Your task to perform on an android device: change keyboard looks Image 0: 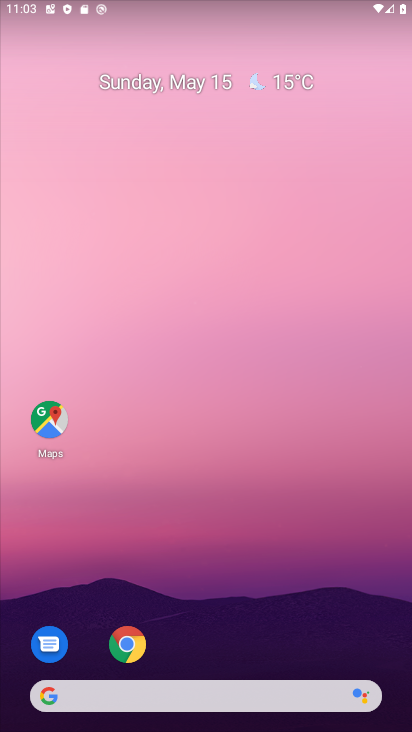
Step 0: drag from (256, 601) to (209, 96)
Your task to perform on an android device: change keyboard looks Image 1: 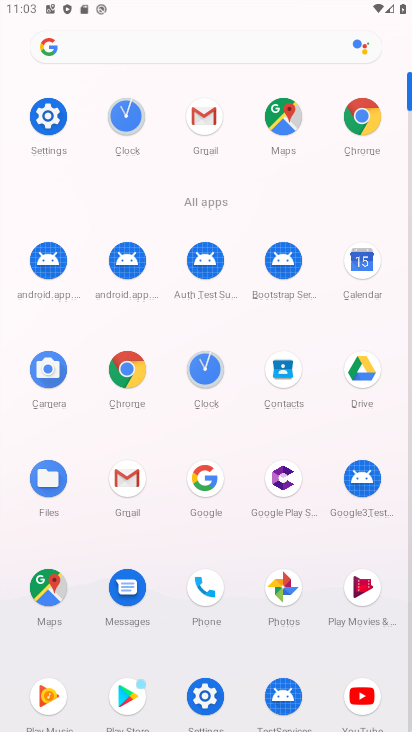
Step 1: click (37, 130)
Your task to perform on an android device: change keyboard looks Image 2: 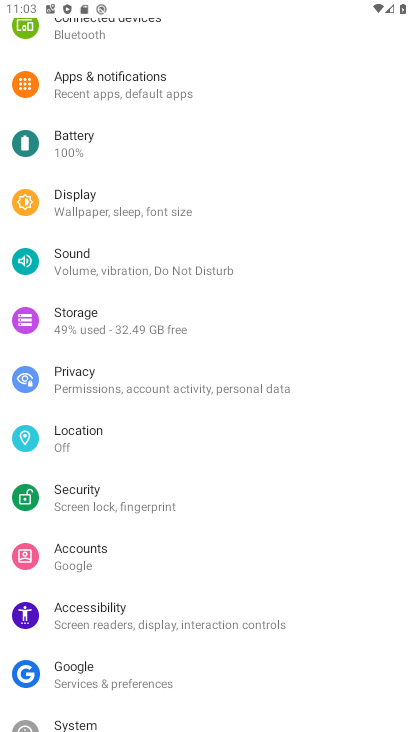
Step 2: drag from (236, 530) to (196, 115)
Your task to perform on an android device: change keyboard looks Image 3: 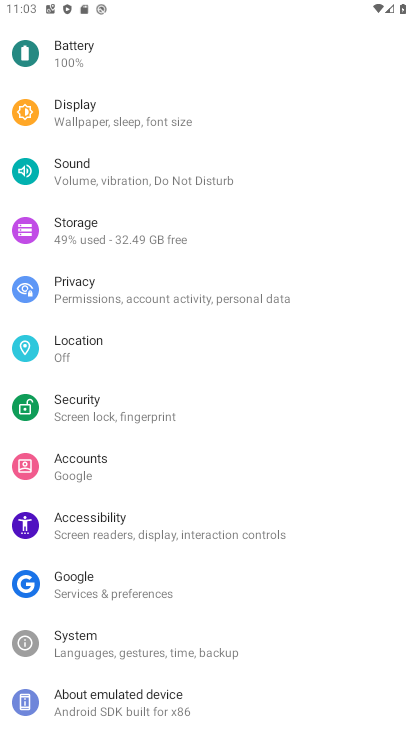
Step 3: click (174, 652)
Your task to perform on an android device: change keyboard looks Image 4: 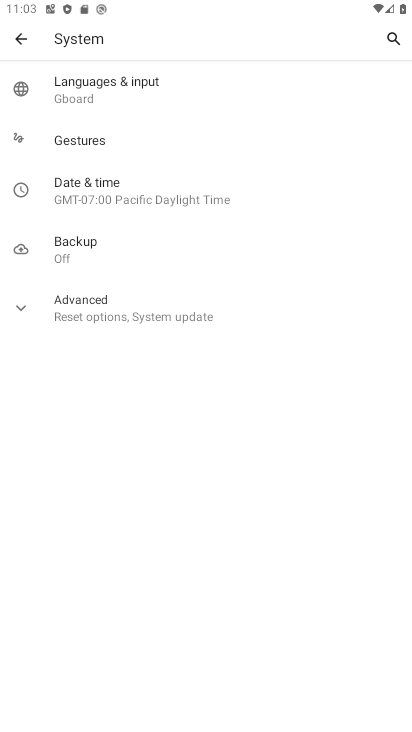
Step 4: click (106, 88)
Your task to perform on an android device: change keyboard looks Image 5: 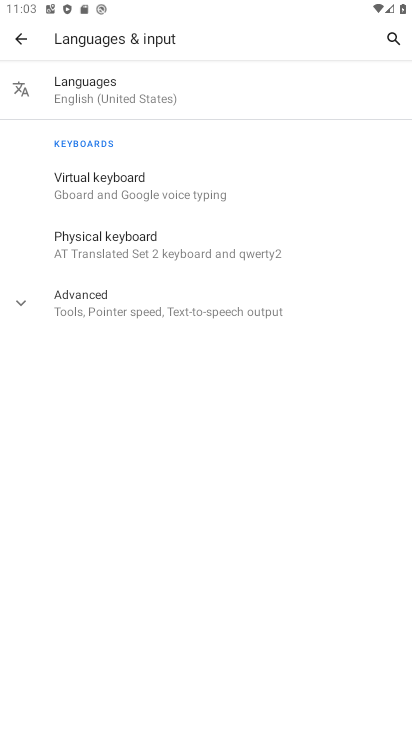
Step 5: click (107, 187)
Your task to perform on an android device: change keyboard looks Image 6: 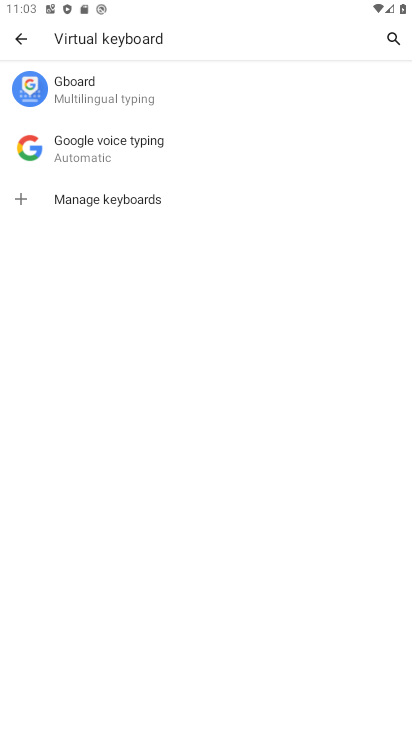
Step 6: click (132, 70)
Your task to perform on an android device: change keyboard looks Image 7: 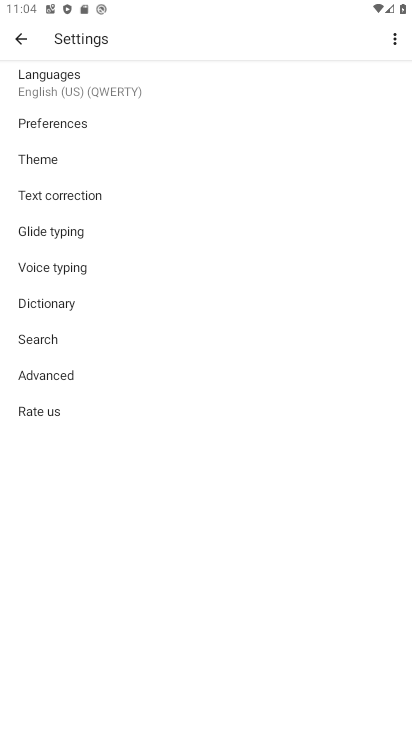
Step 7: click (91, 160)
Your task to perform on an android device: change keyboard looks Image 8: 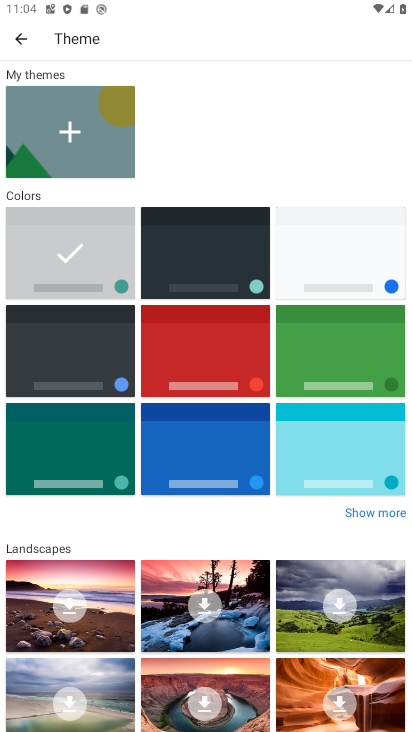
Step 8: click (355, 355)
Your task to perform on an android device: change keyboard looks Image 9: 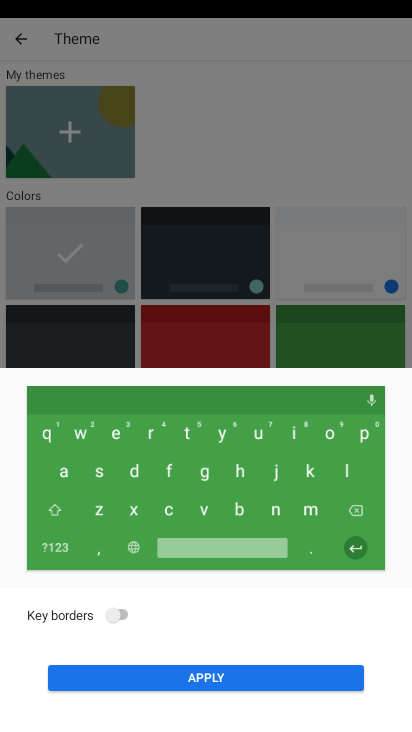
Step 9: click (227, 672)
Your task to perform on an android device: change keyboard looks Image 10: 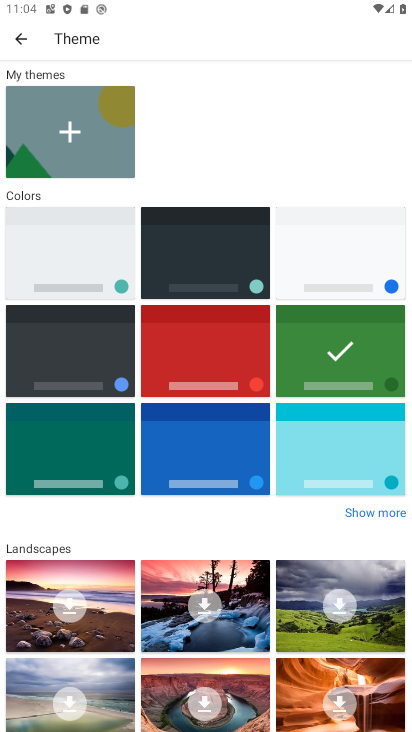
Step 10: task complete